Your task to perform on an android device: open a bookmark in the chrome app Image 0: 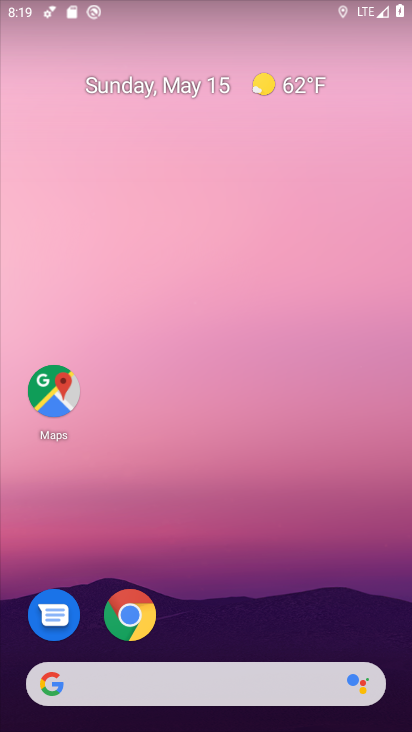
Step 0: click (137, 627)
Your task to perform on an android device: open a bookmark in the chrome app Image 1: 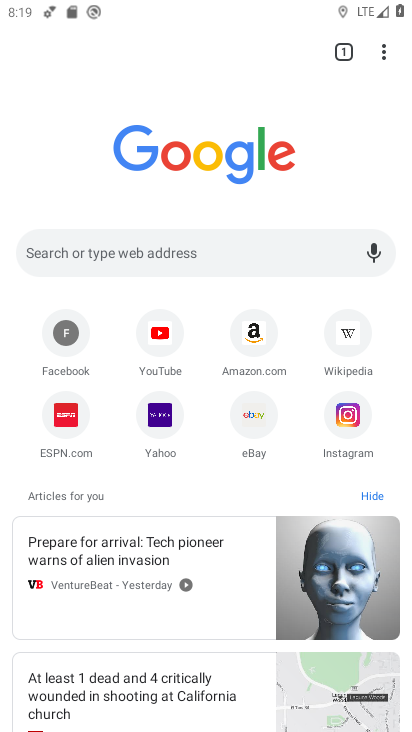
Step 1: click (384, 51)
Your task to perform on an android device: open a bookmark in the chrome app Image 2: 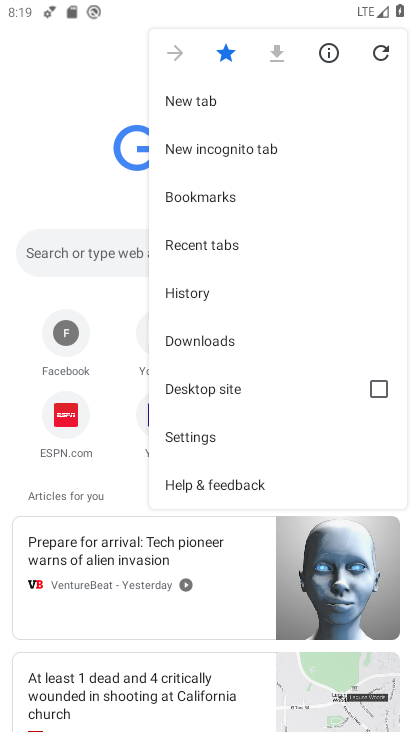
Step 2: click (229, 198)
Your task to perform on an android device: open a bookmark in the chrome app Image 3: 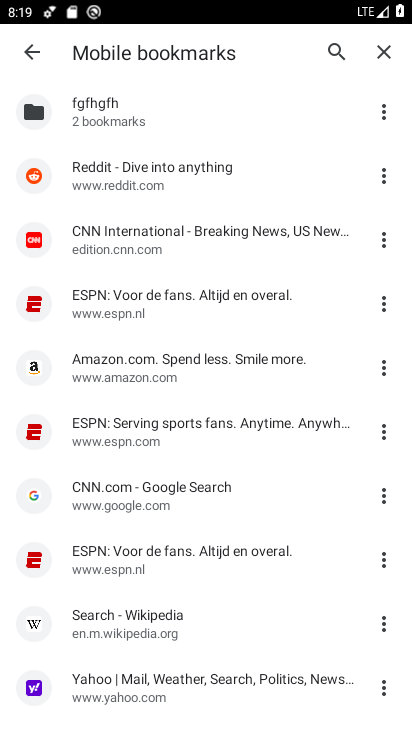
Step 3: click (191, 189)
Your task to perform on an android device: open a bookmark in the chrome app Image 4: 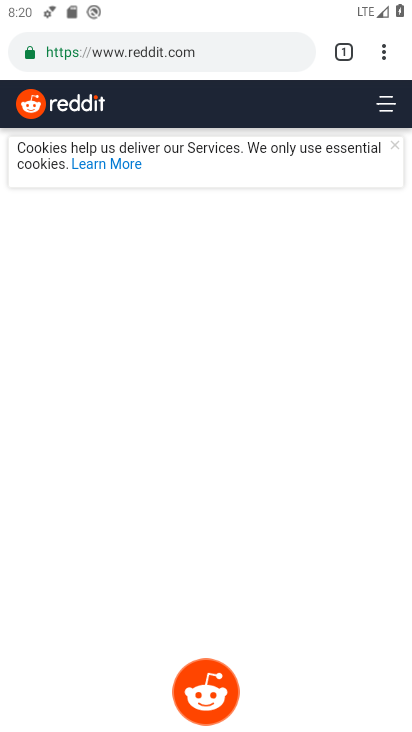
Step 4: task complete